Your task to perform on an android device: check android version Image 0: 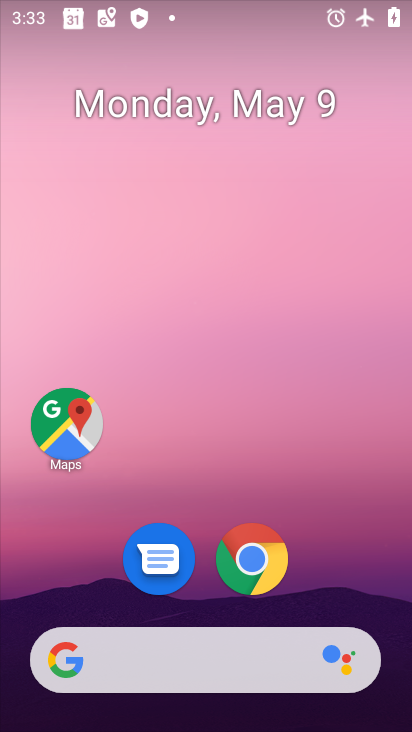
Step 0: drag from (212, 704) to (211, 98)
Your task to perform on an android device: check android version Image 1: 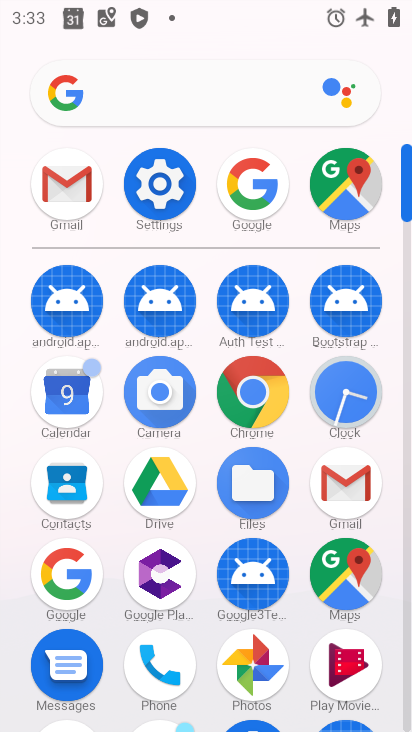
Step 1: click (166, 188)
Your task to perform on an android device: check android version Image 2: 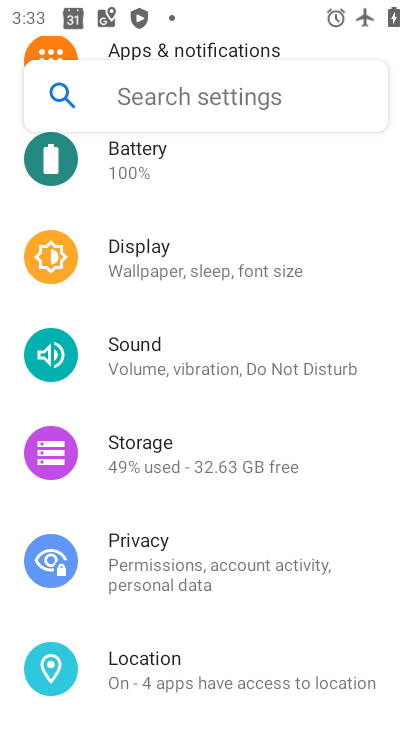
Step 2: drag from (200, 667) to (210, 265)
Your task to perform on an android device: check android version Image 3: 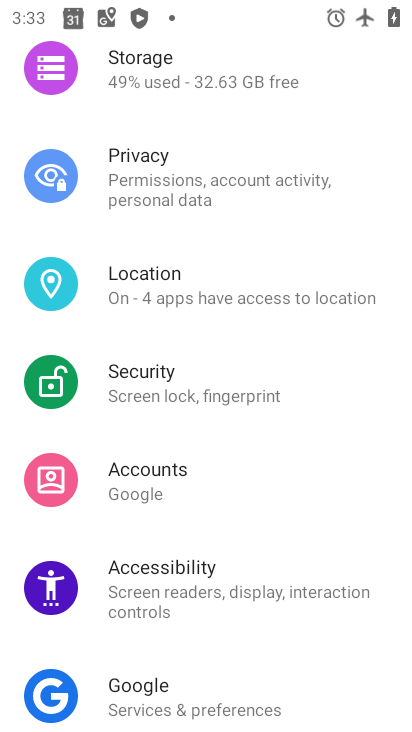
Step 3: drag from (225, 694) to (233, 416)
Your task to perform on an android device: check android version Image 4: 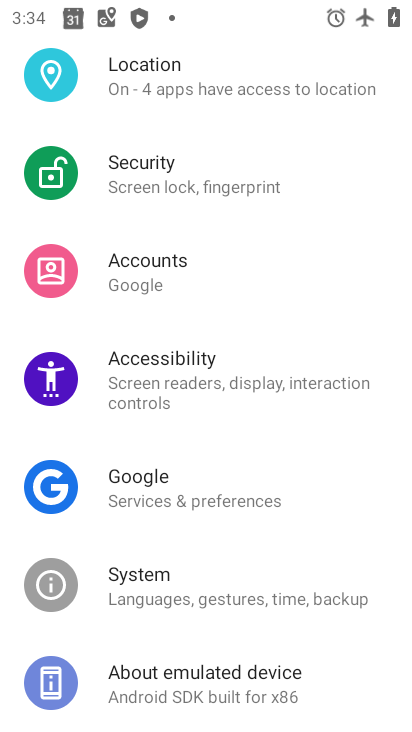
Step 4: drag from (227, 667) to (237, 377)
Your task to perform on an android device: check android version Image 5: 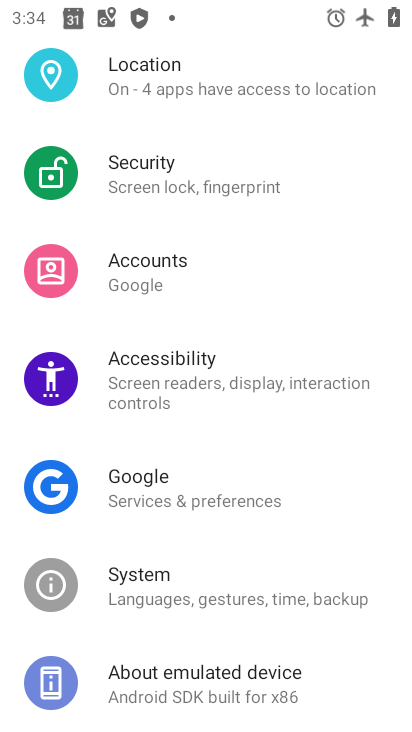
Step 5: click (180, 692)
Your task to perform on an android device: check android version Image 6: 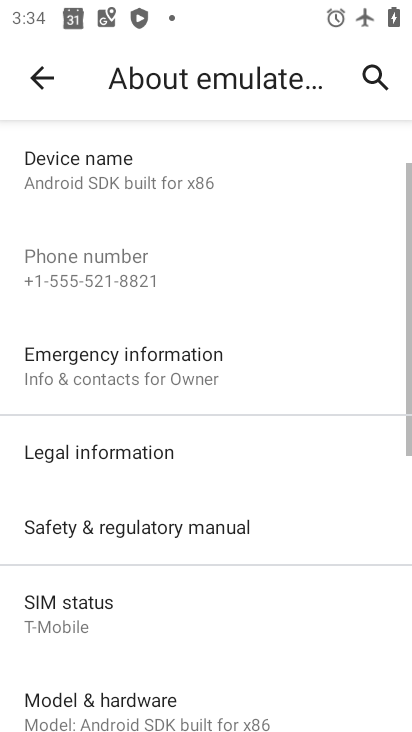
Step 6: drag from (198, 653) to (205, 193)
Your task to perform on an android device: check android version Image 7: 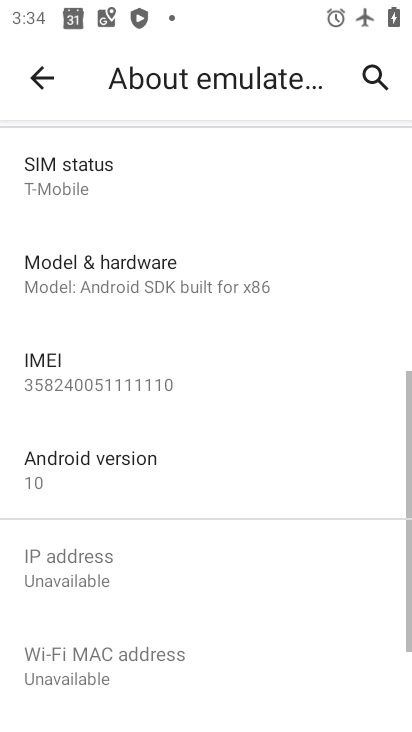
Step 7: click (49, 460)
Your task to perform on an android device: check android version Image 8: 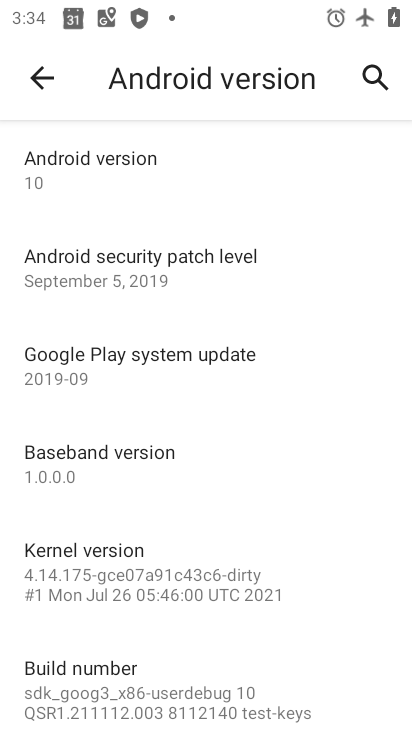
Step 8: task complete